Your task to perform on an android device: Go to accessibility settings Image 0: 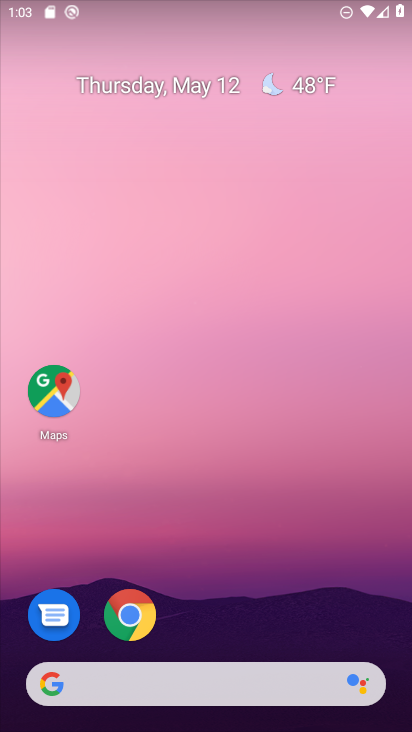
Step 0: drag from (227, 650) to (348, 0)
Your task to perform on an android device: Go to accessibility settings Image 1: 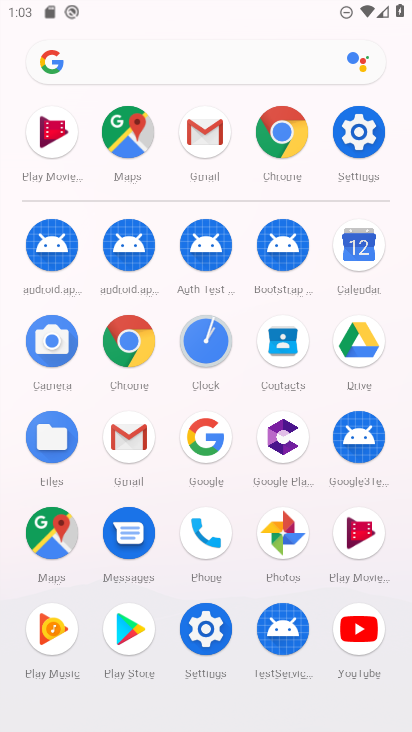
Step 1: click (349, 138)
Your task to perform on an android device: Go to accessibility settings Image 2: 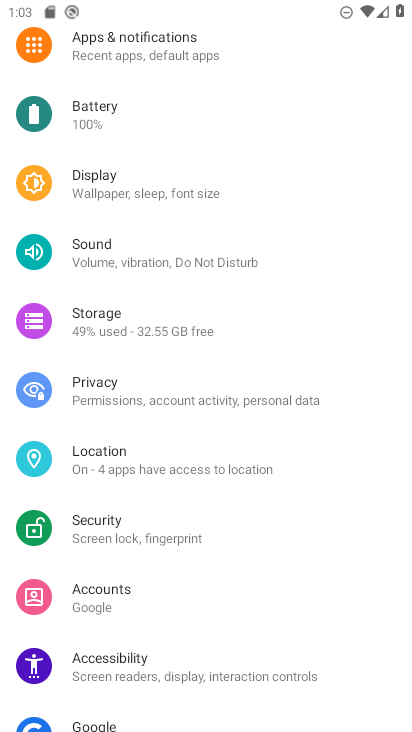
Step 2: click (238, 656)
Your task to perform on an android device: Go to accessibility settings Image 3: 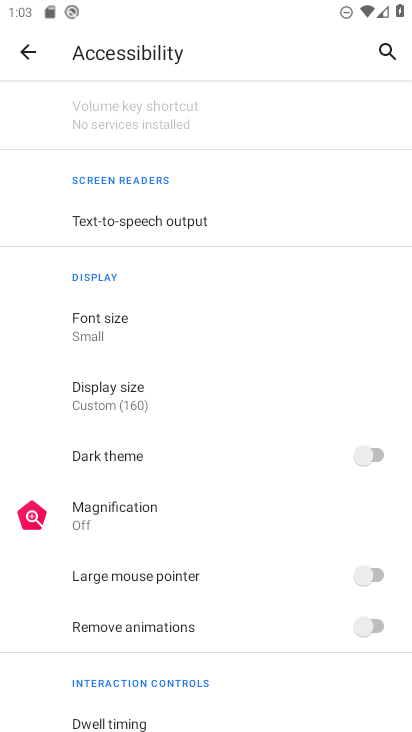
Step 3: task complete